Your task to perform on an android device: When is my next meeting? Image 0: 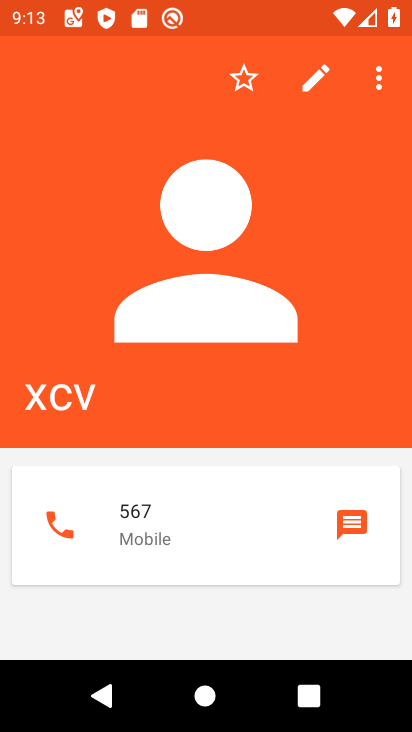
Step 0: press home button
Your task to perform on an android device: When is my next meeting? Image 1: 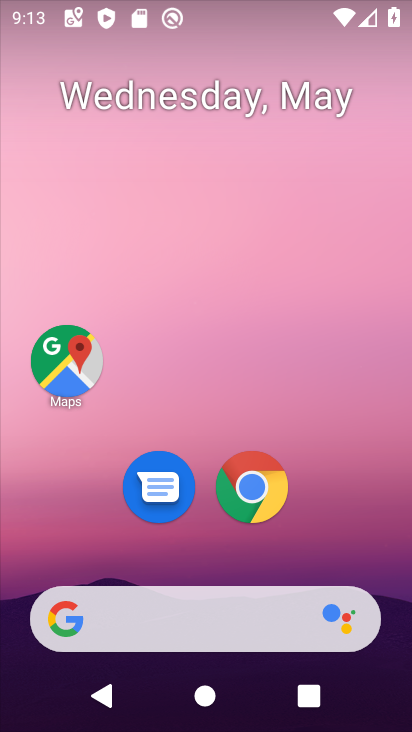
Step 1: drag from (340, 522) to (253, 167)
Your task to perform on an android device: When is my next meeting? Image 2: 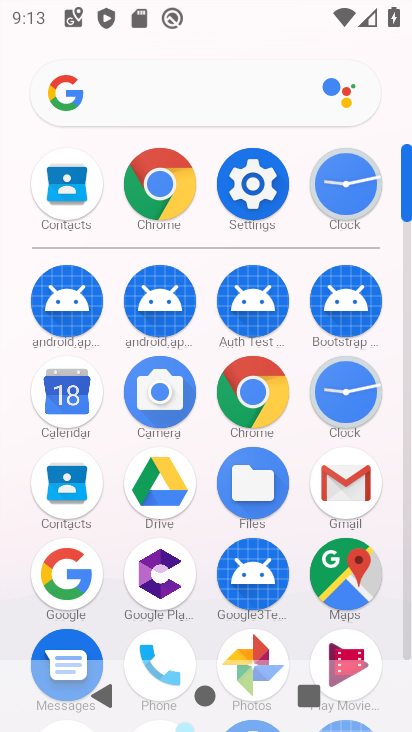
Step 2: click (67, 408)
Your task to perform on an android device: When is my next meeting? Image 3: 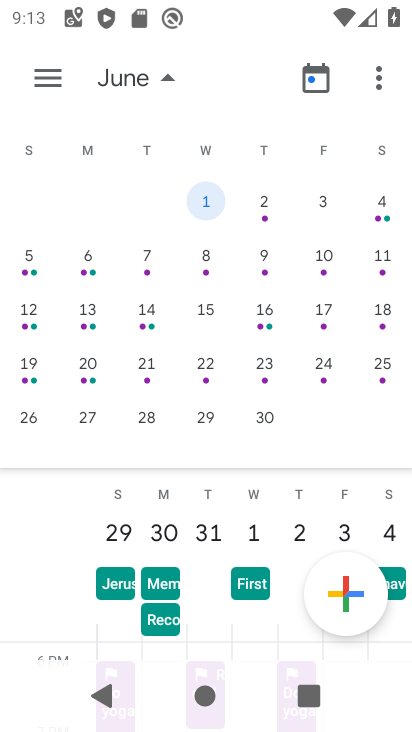
Step 3: drag from (50, 290) to (403, 391)
Your task to perform on an android device: When is my next meeting? Image 4: 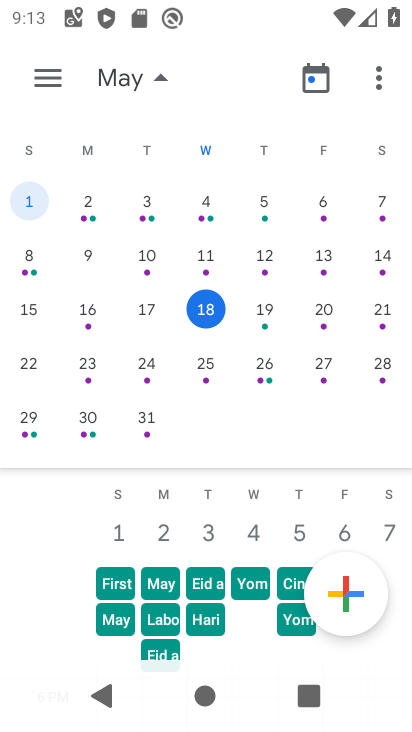
Step 4: click (209, 312)
Your task to perform on an android device: When is my next meeting? Image 5: 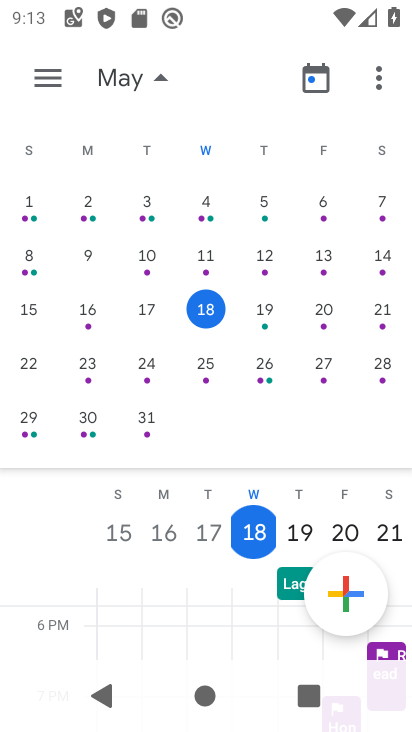
Step 5: task complete